Your task to perform on an android device: turn off javascript in the chrome app Image 0: 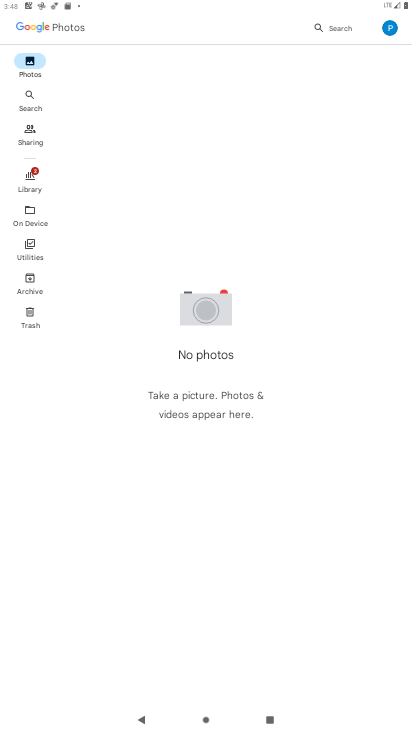
Step 0: press home button
Your task to perform on an android device: turn off javascript in the chrome app Image 1: 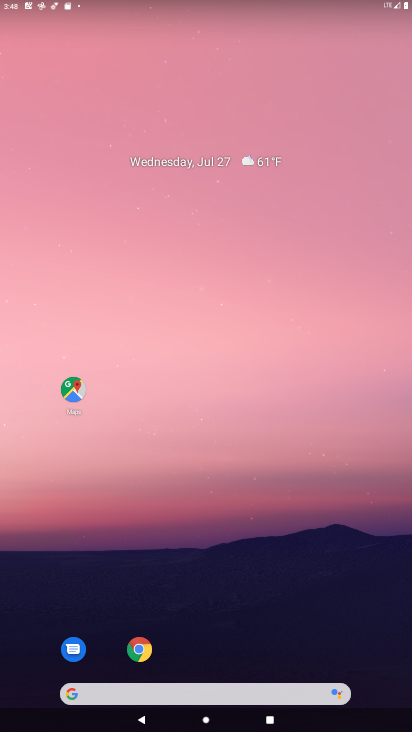
Step 1: click (141, 648)
Your task to perform on an android device: turn off javascript in the chrome app Image 2: 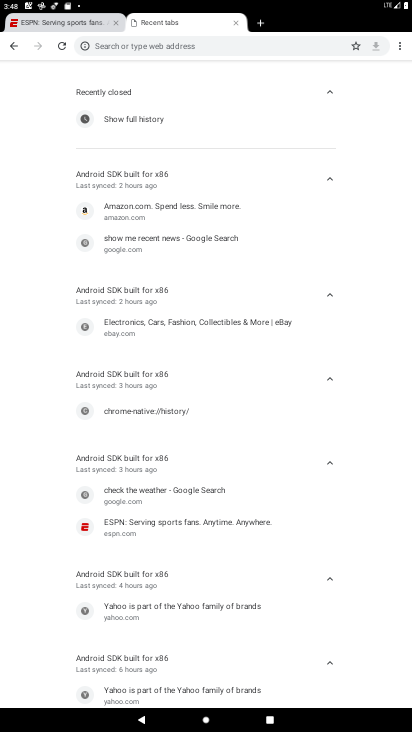
Step 2: click (401, 45)
Your task to perform on an android device: turn off javascript in the chrome app Image 3: 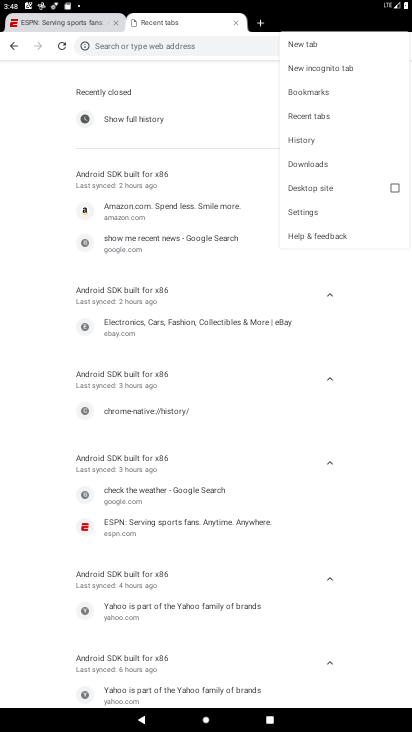
Step 3: click (298, 211)
Your task to perform on an android device: turn off javascript in the chrome app Image 4: 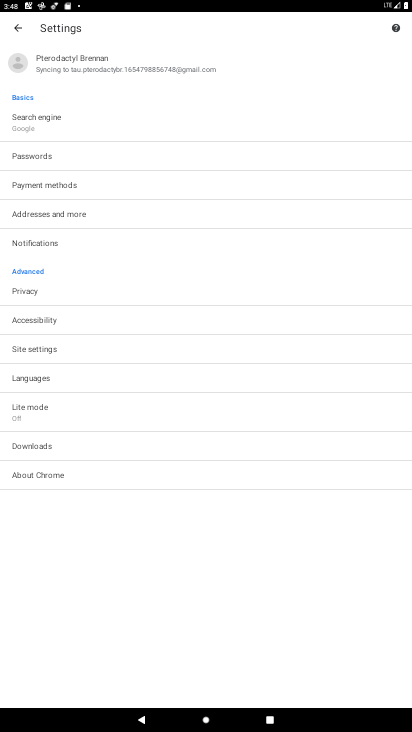
Step 4: click (35, 350)
Your task to perform on an android device: turn off javascript in the chrome app Image 5: 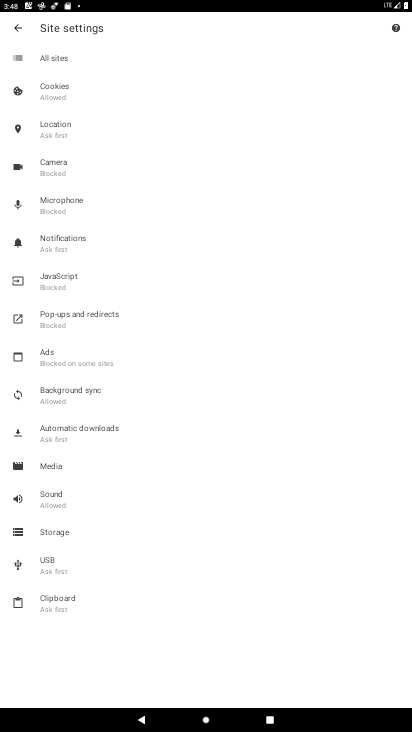
Step 5: click (58, 275)
Your task to perform on an android device: turn off javascript in the chrome app Image 6: 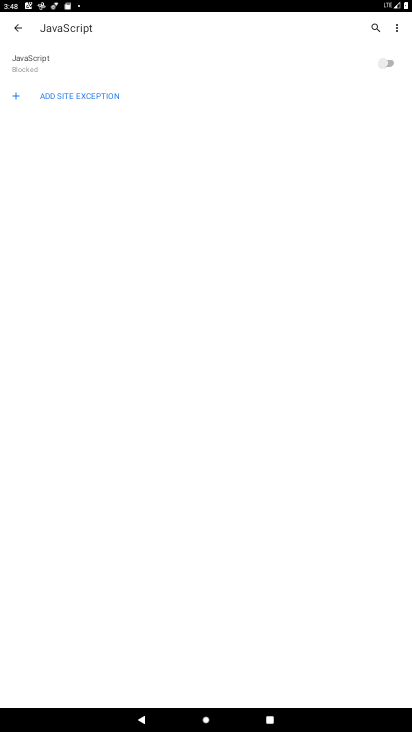
Step 6: task complete